Your task to perform on an android device: Clear the cart on target.com. Add "energizer triple a" to the cart on target.com, then select checkout. Image 0: 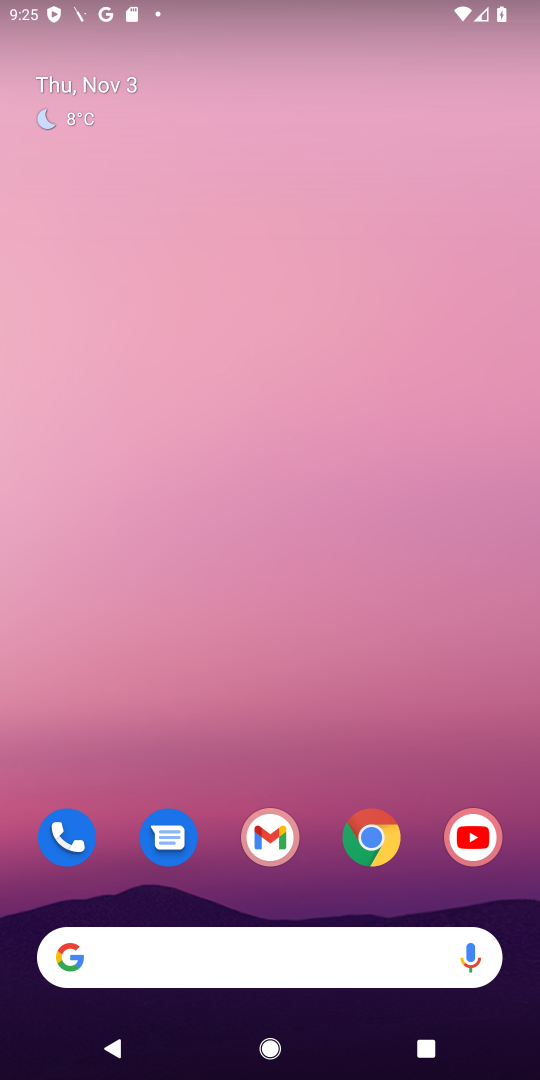
Step 0: click (370, 835)
Your task to perform on an android device: Clear the cart on target.com. Add "energizer triple a" to the cart on target.com, then select checkout. Image 1: 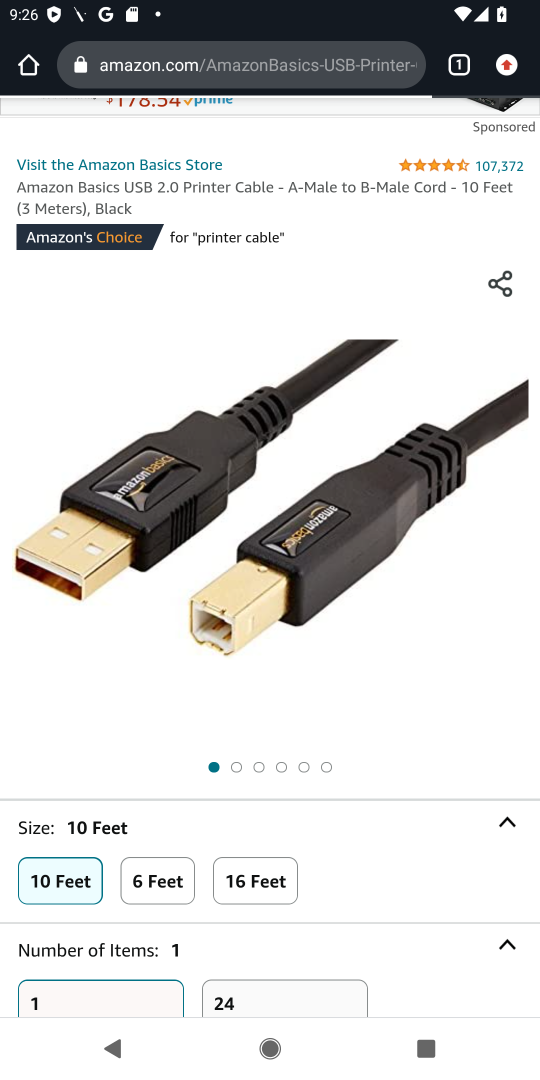
Step 1: click (290, 63)
Your task to perform on an android device: Clear the cart on target.com. Add "energizer triple a" to the cart on target.com, then select checkout. Image 2: 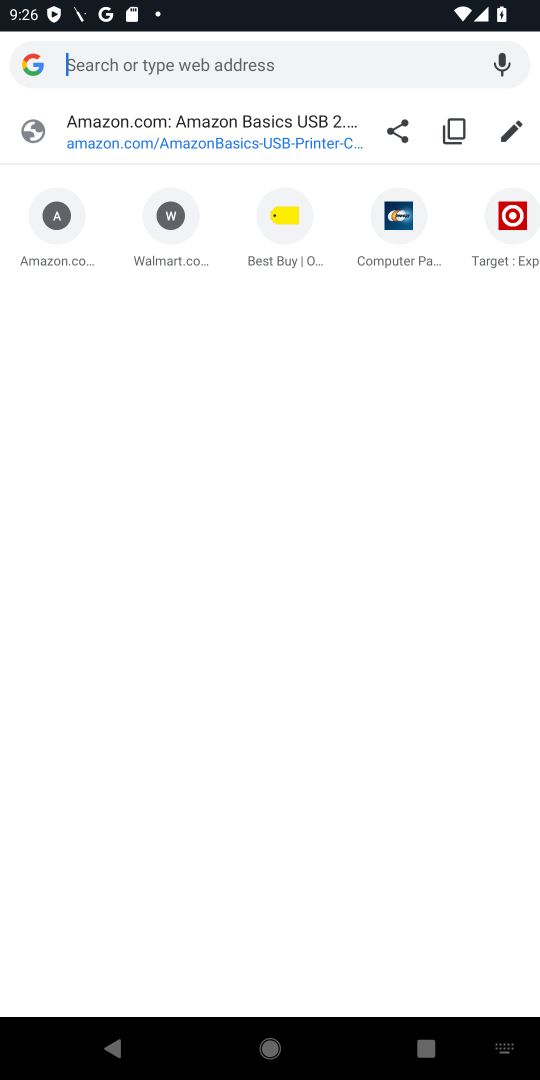
Step 2: type " target.com"
Your task to perform on an android device: Clear the cart on target.com. Add "energizer triple a" to the cart on target.com, then select checkout. Image 3: 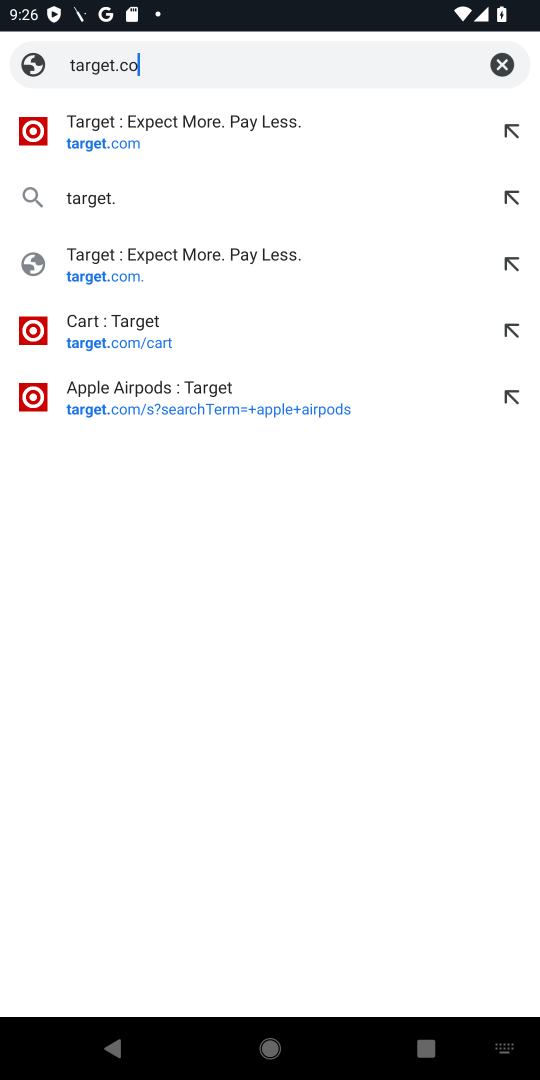
Step 3: press enter
Your task to perform on an android device: Clear the cart on target.com. Add "energizer triple a" to the cart on target.com, then select checkout. Image 4: 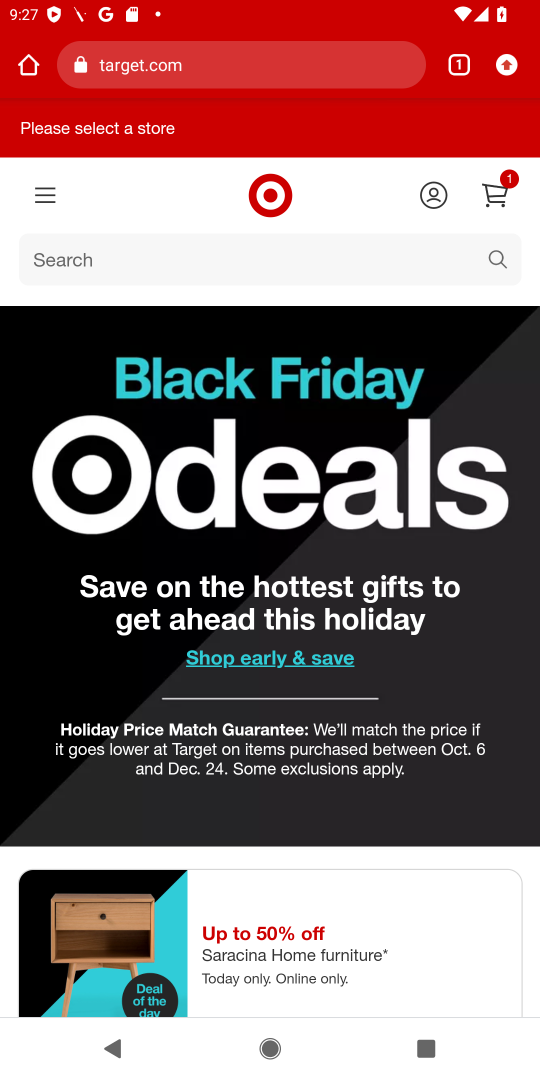
Step 4: click (136, 257)
Your task to perform on an android device: Clear the cart on target.com. Add "energizer triple a" to the cart on target.com, then select checkout. Image 5: 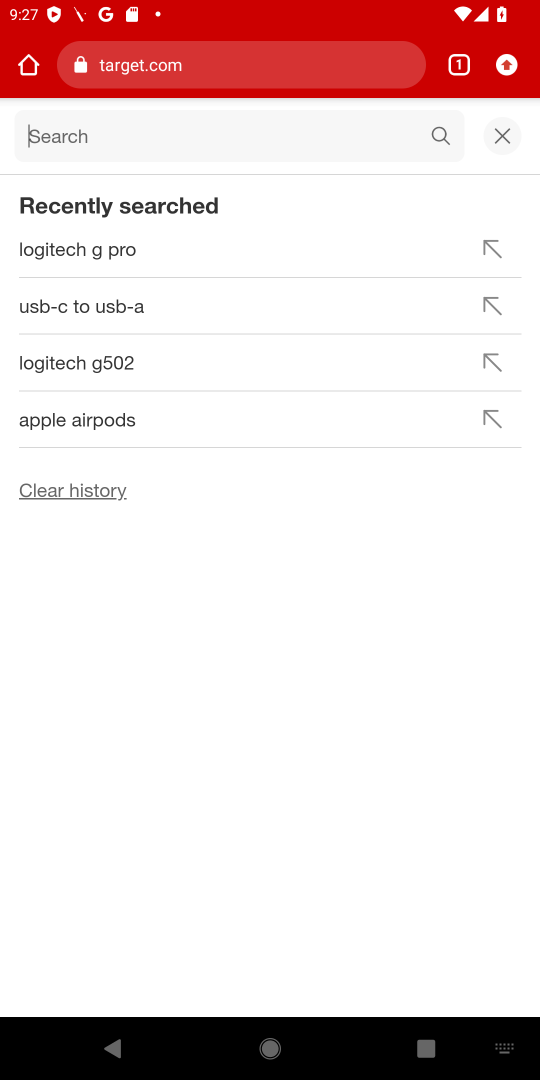
Step 5: type "energizer triple a"
Your task to perform on an android device: Clear the cart on target.com. Add "energizer triple a" to the cart on target.com, then select checkout. Image 6: 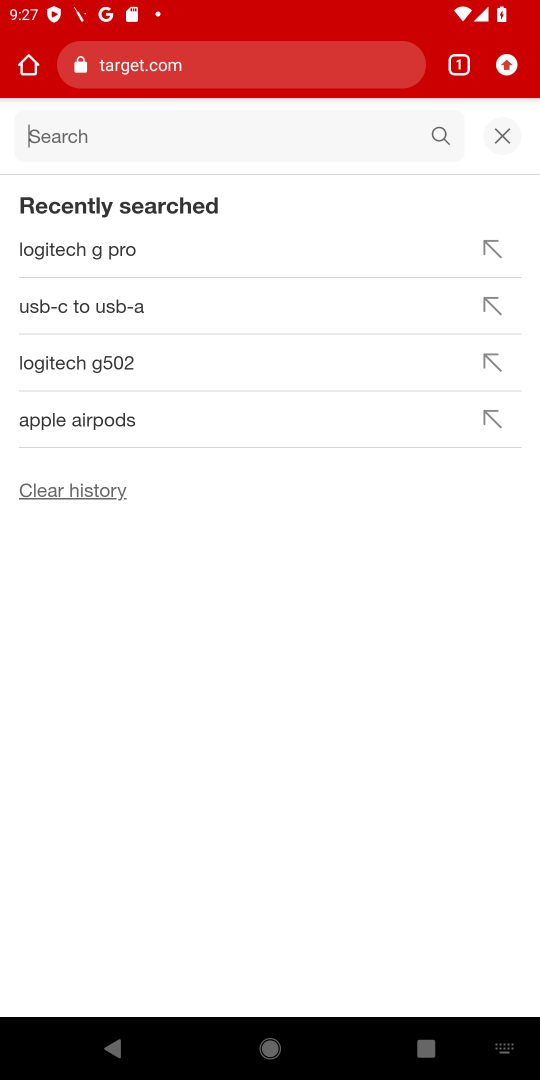
Step 6: press enter
Your task to perform on an android device: Clear the cart on target.com. Add "energizer triple a" to the cart on target.com, then select checkout. Image 7: 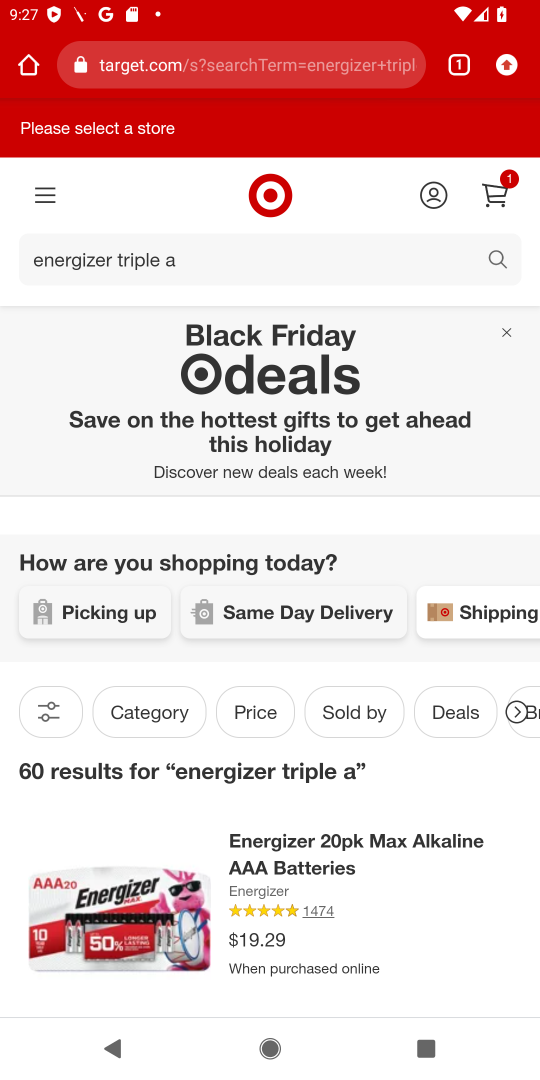
Step 7: drag from (128, 951) to (191, 742)
Your task to perform on an android device: Clear the cart on target.com. Add "energizer triple a" to the cart on target.com, then select checkout. Image 8: 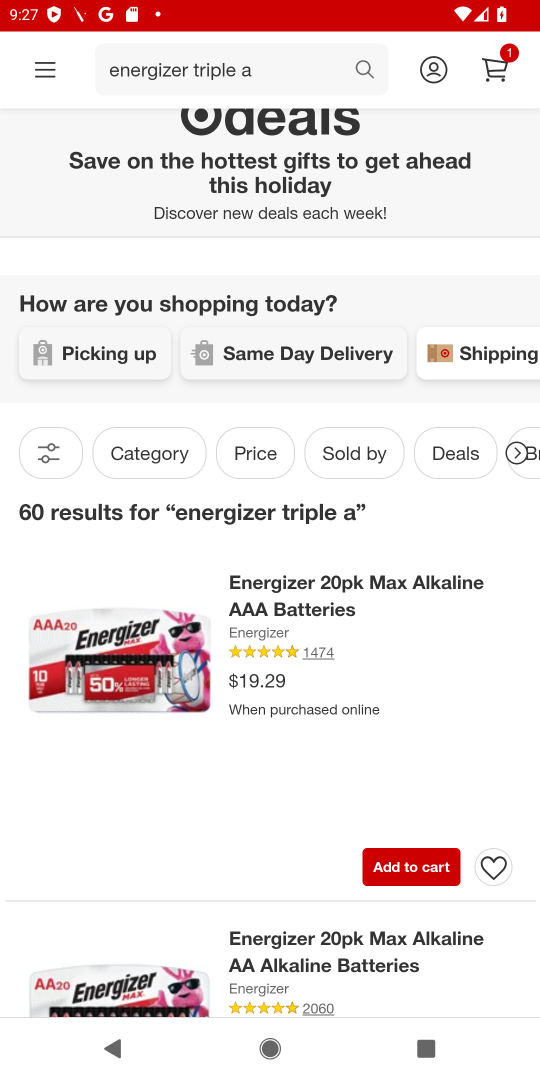
Step 8: click (405, 868)
Your task to perform on an android device: Clear the cart on target.com. Add "energizer triple a" to the cart on target.com, then select checkout. Image 9: 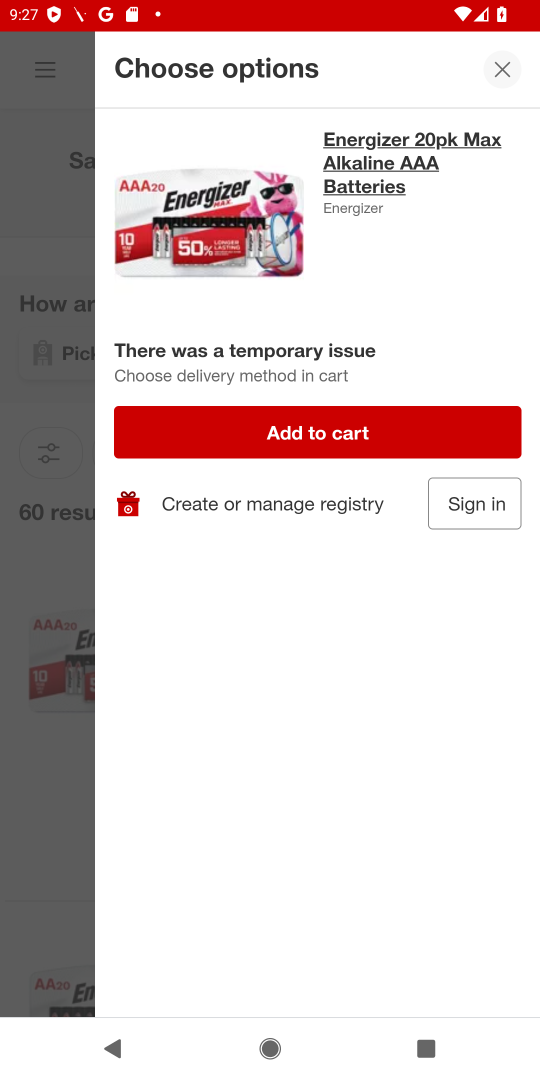
Step 9: click (317, 436)
Your task to perform on an android device: Clear the cart on target.com. Add "energizer triple a" to the cart on target.com, then select checkout. Image 10: 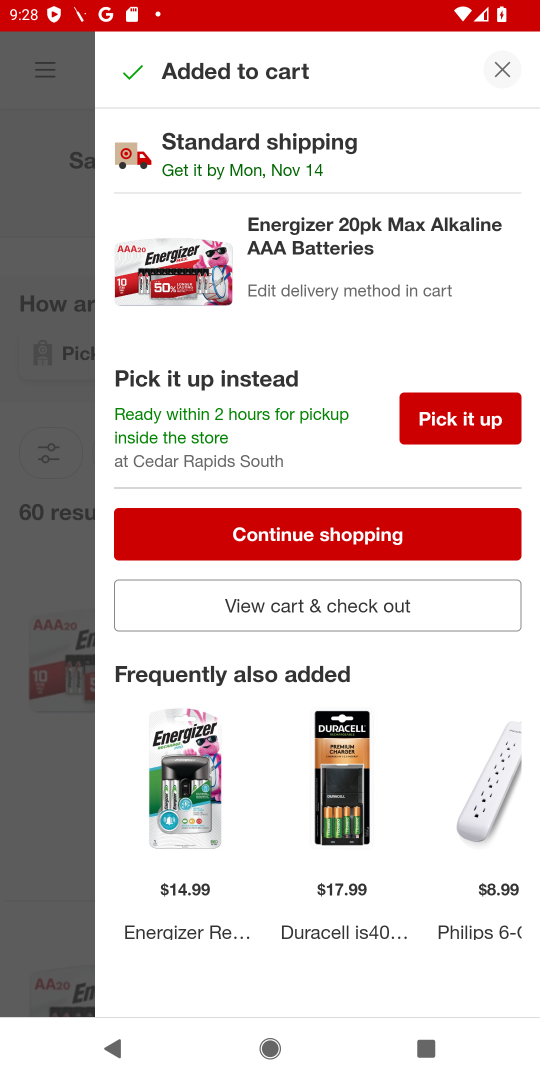
Step 10: click (380, 601)
Your task to perform on an android device: Clear the cart on target.com. Add "energizer triple a" to the cart on target.com, then select checkout. Image 11: 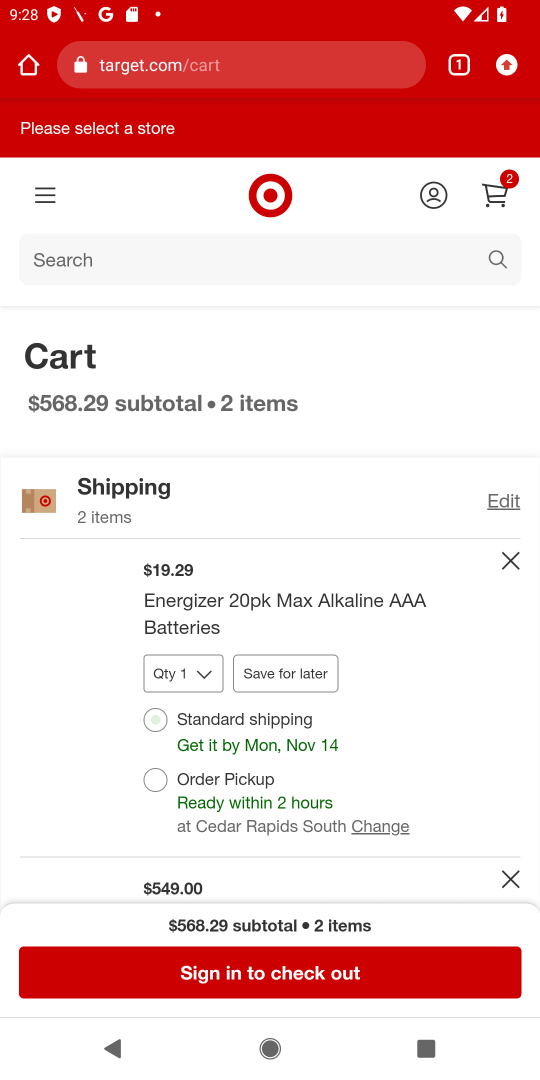
Step 11: drag from (283, 847) to (443, 314)
Your task to perform on an android device: Clear the cart on target.com. Add "energizer triple a" to the cart on target.com, then select checkout. Image 12: 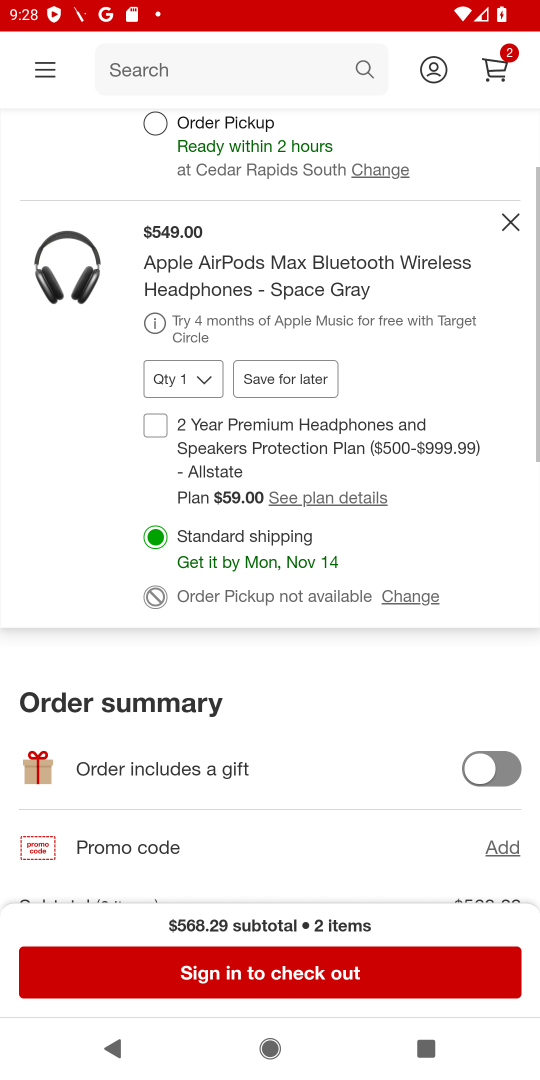
Step 12: click (513, 218)
Your task to perform on an android device: Clear the cart on target.com. Add "energizer triple a" to the cart on target.com, then select checkout. Image 13: 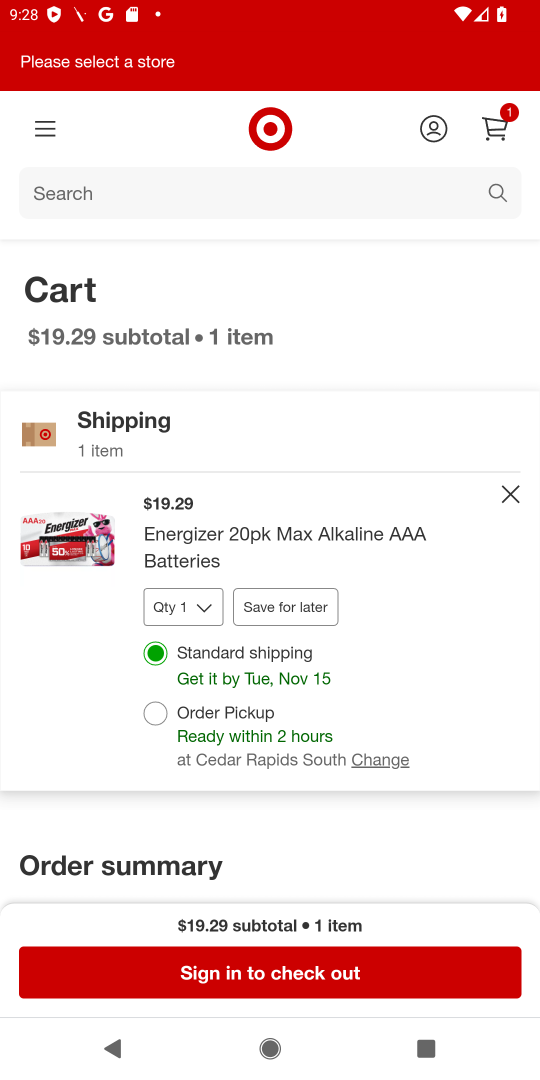
Step 13: click (279, 978)
Your task to perform on an android device: Clear the cart on target.com. Add "energizer triple a" to the cart on target.com, then select checkout. Image 14: 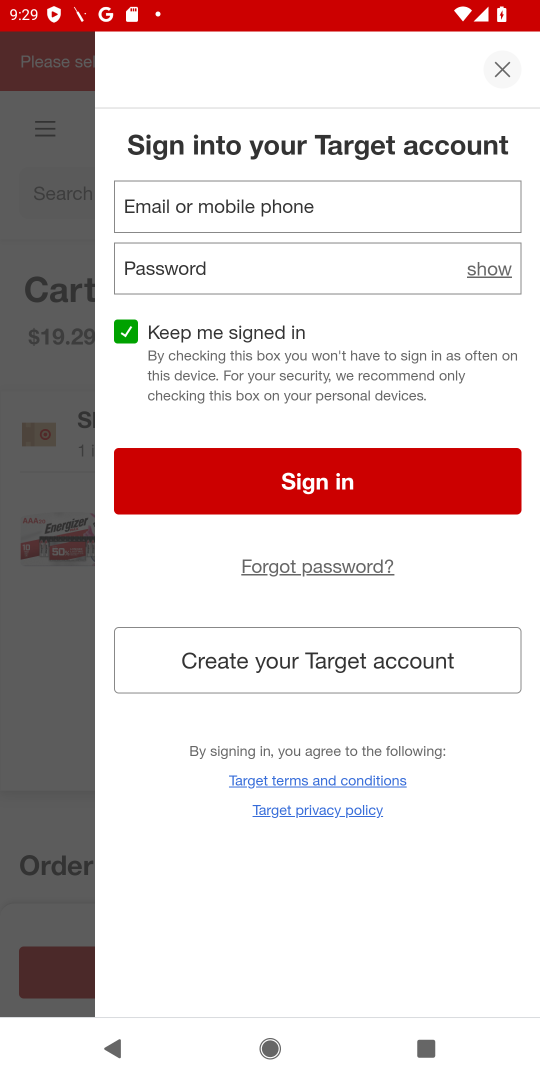
Step 14: task complete